Your task to perform on an android device: Clear the cart on bestbuy.com. Search for usb-b on bestbuy.com, select the first entry, and add it to the cart. Image 0: 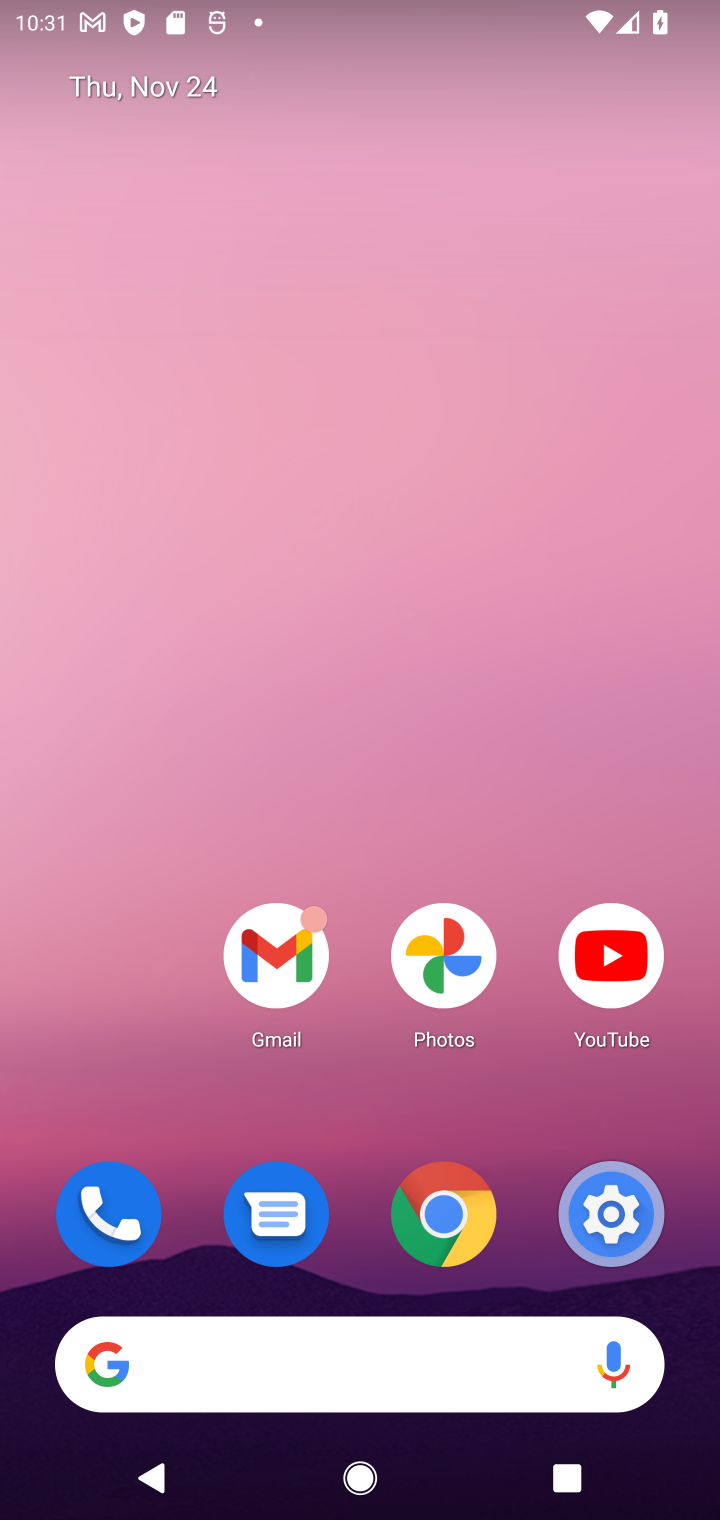
Step 0: click (204, 1371)
Your task to perform on an android device: Clear the cart on bestbuy.com. Search for usb-b on bestbuy.com, select the first entry, and add it to the cart. Image 1: 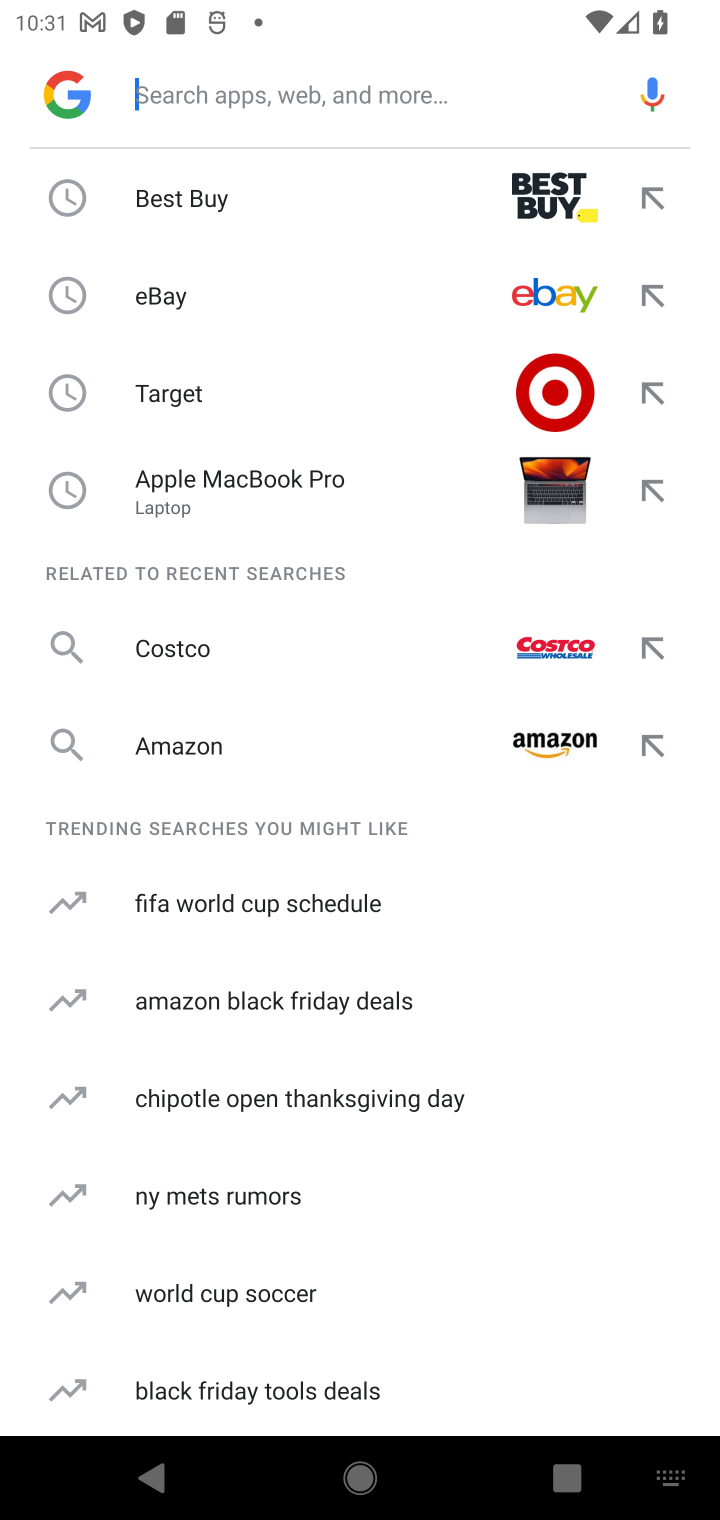
Step 1: click (332, 232)
Your task to perform on an android device: Clear the cart on bestbuy.com. Search for usb-b on bestbuy.com, select the first entry, and add it to the cart. Image 2: 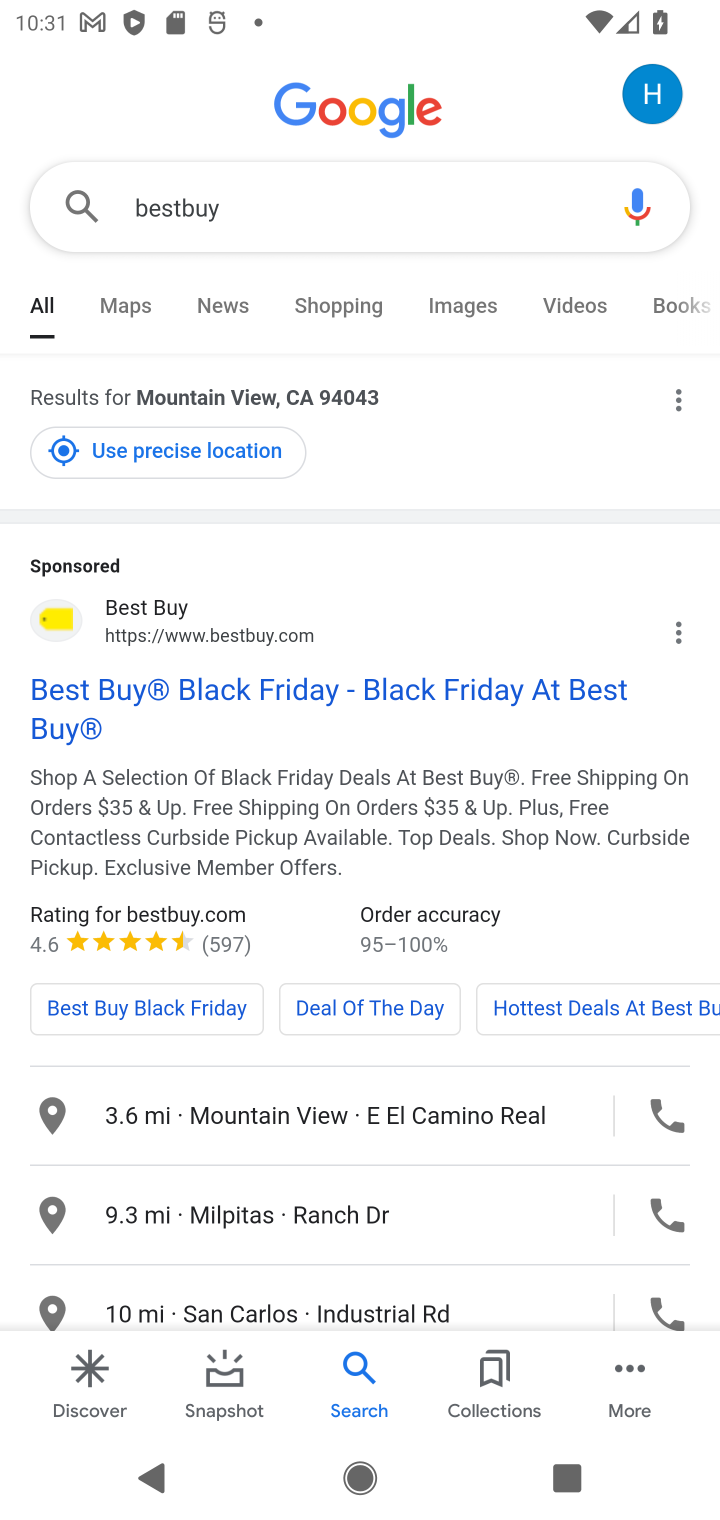
Step 2: click (180, 673)
Your task to perform on an android device: Clear the cart on bestbuy.com. Search for usb-b on bestbuy.com, select the first entry, and add it to the cart. Image 3: 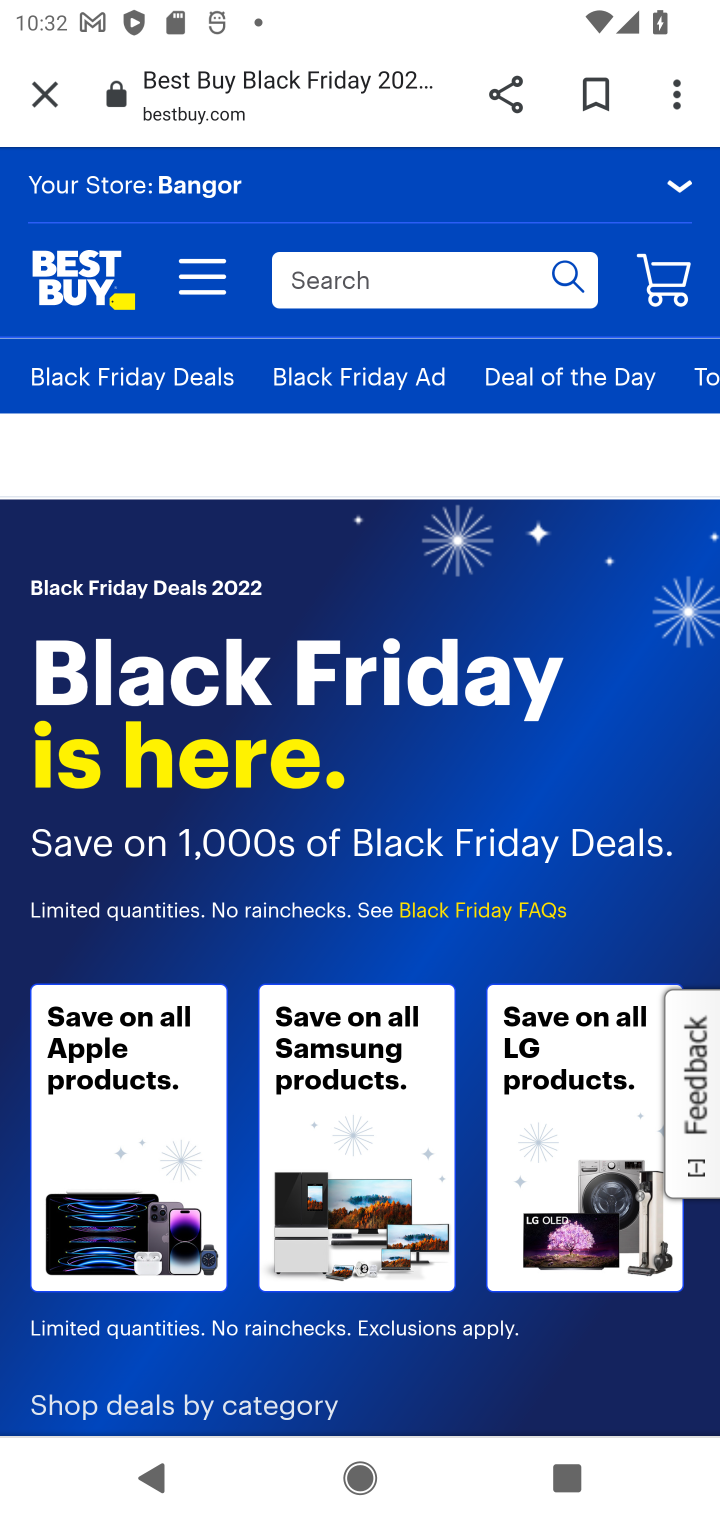
Step 3: task complete